Your task to perform on an android device: toggle data saver in the chrome app Image 0: 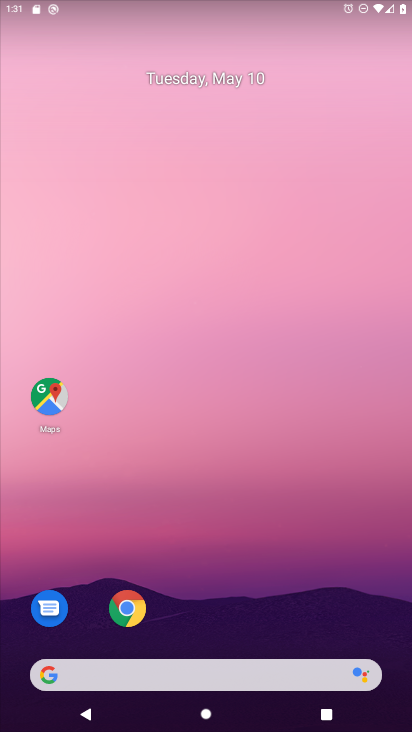
Step 0: drag from (317, 591) to (320, 142)
Your task to perform on an android device: toggle data saver in the chrome app Image 1: 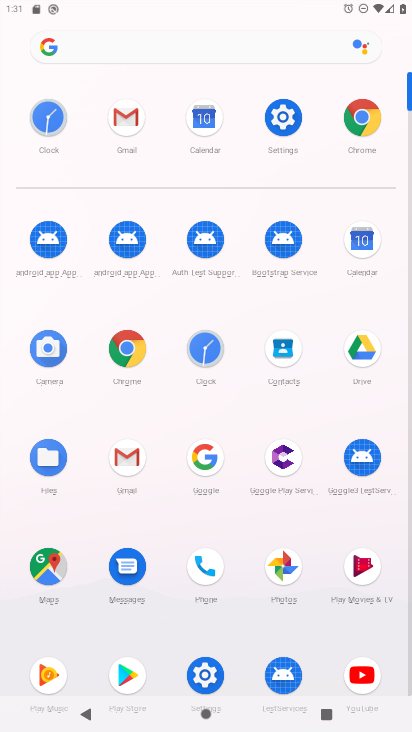
Step 1: click (131, 345)
Your task to perform on an android device: toggle data saver in the chrome app Image 2: 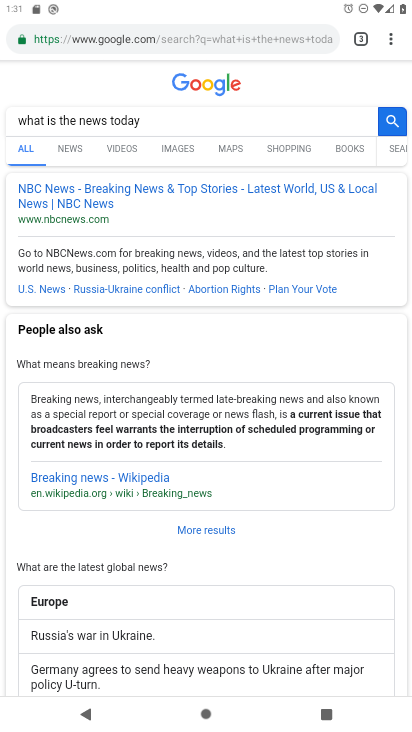
Step 2: drag from (392, 50) to (252, 437)
Your task to perform on an android device: toggle data saver in the chrome app Image 3: 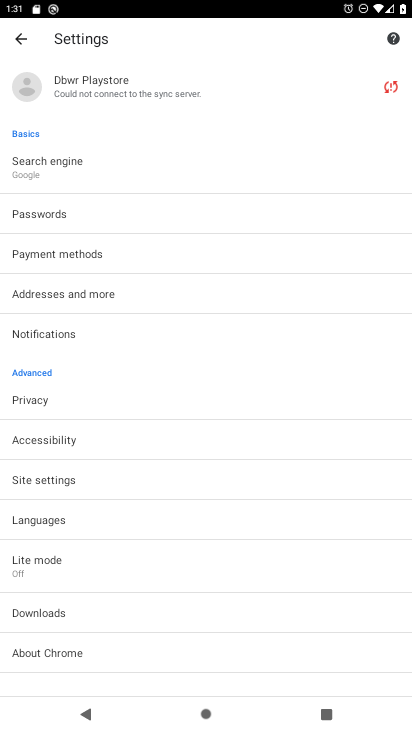
Step 3: click (69, 570)
Your task to perform on an android device: toggle data saver in the chrome app Image 4: 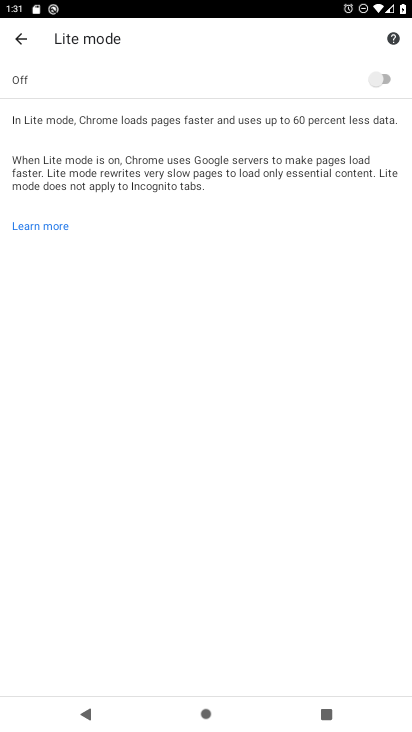
Step 4: click (392, 78)
Your task to perform on an android device: toggle data saver in the chrome app Image 5: 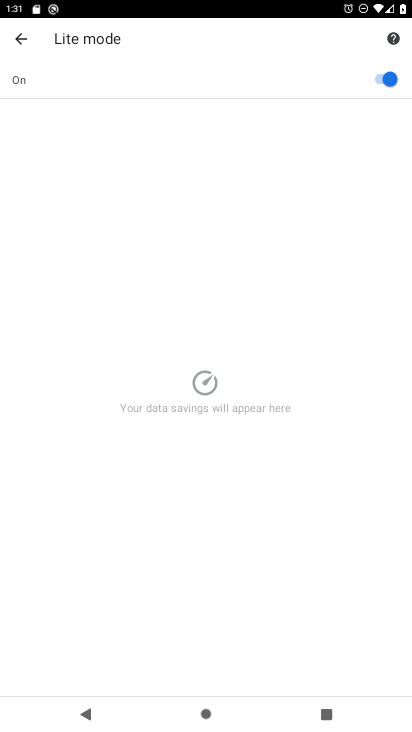
Step 5: task complete